Your task to perform on an android device: turn off javascript in the chrome app Image 0: 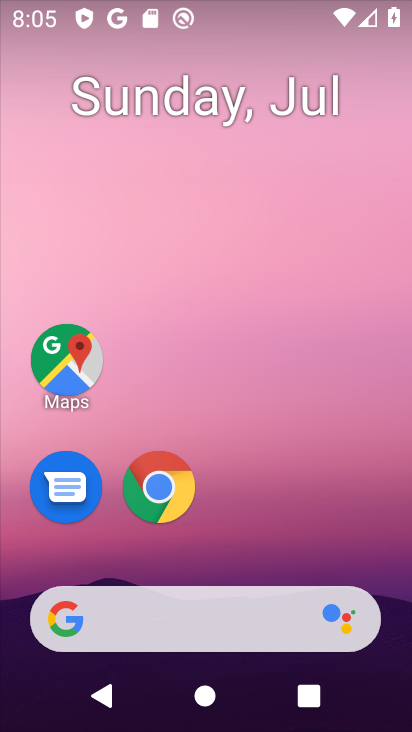
Step 0: click (159, 489)
Your task to perform on an android device: turn off javascript in the chrome app Image 1: 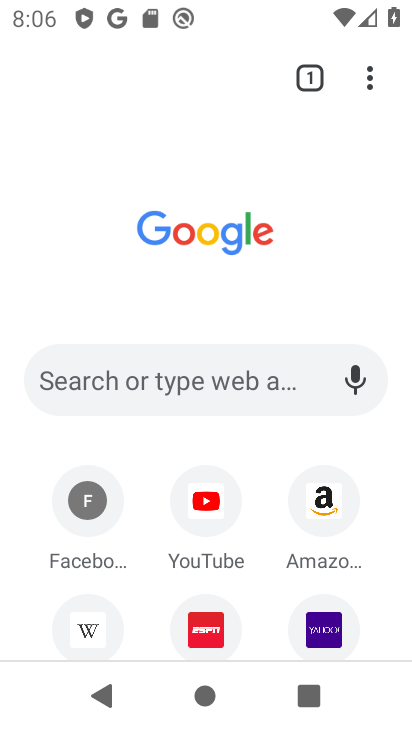
Step 1: drag from (369, 69) to (143, 548)
Your task to perform on an android device: turn off javascript in the chrome app Image 2: 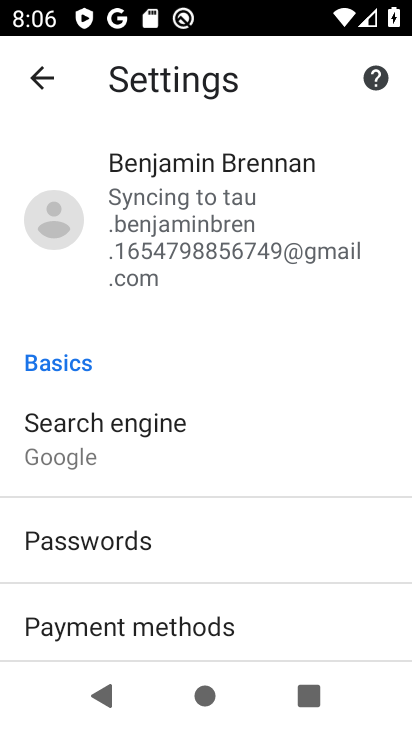
Step 2: drag from (145, 589) to (213, 112)
Your task to perform on an android device: turn off javascript in the chrome app Image 3: 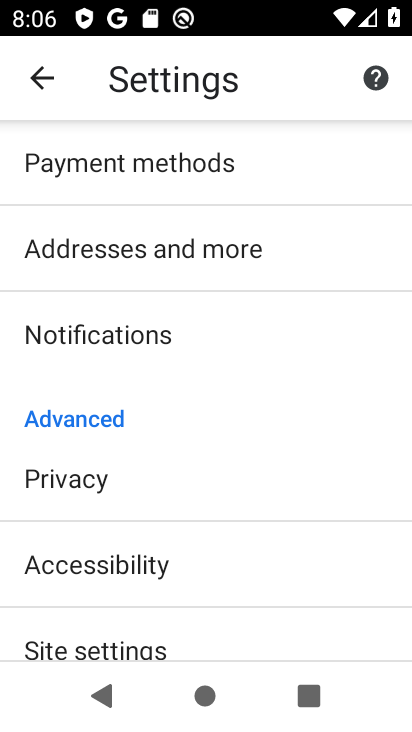
Step 3: click (126, 648)
Your task to perform on an android device: turn off javascript in the chrome app Image 4: 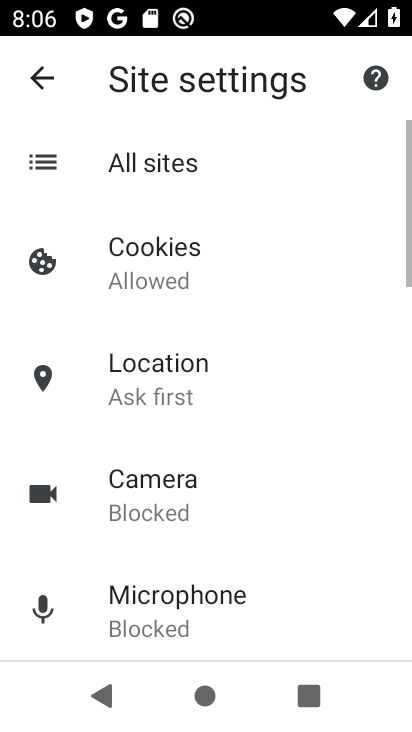
Step 4: drag from (137, 626) to (188, 210)
Your task to perform on an android device: turn off javascript in the chrome app Image 5: 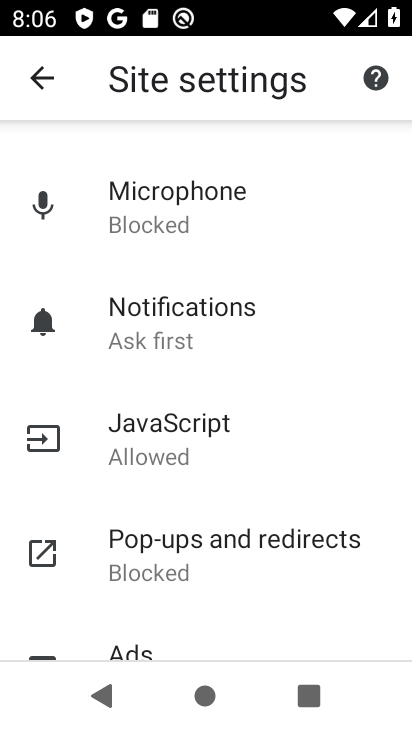
Step 5: click (155, 442)
Your task to perform on an android device: turn off javascript in the chrome app Image 6: 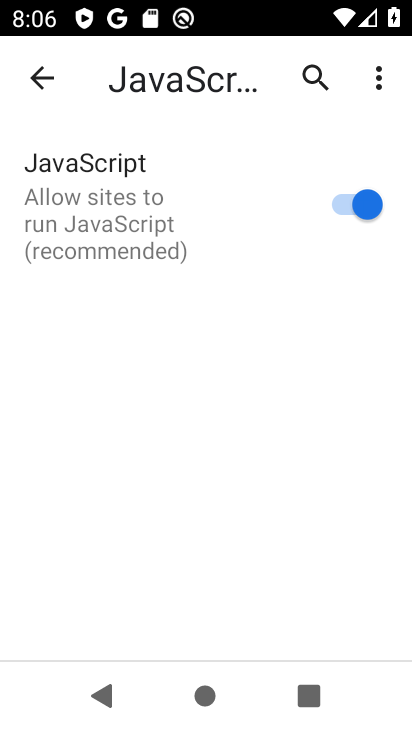
Step 6: click (373, 211)
Your task to perform on an android device: turn off javascript in the chrome app Image 7: 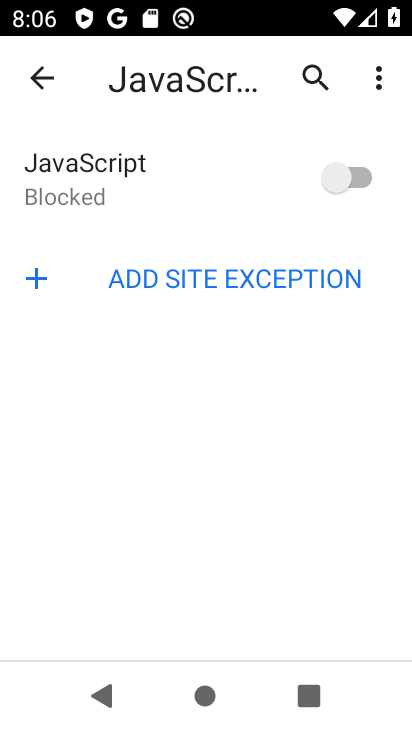
Step 7: task complete